Your task to perform on an android device: change the upload size in google photos Image 0: 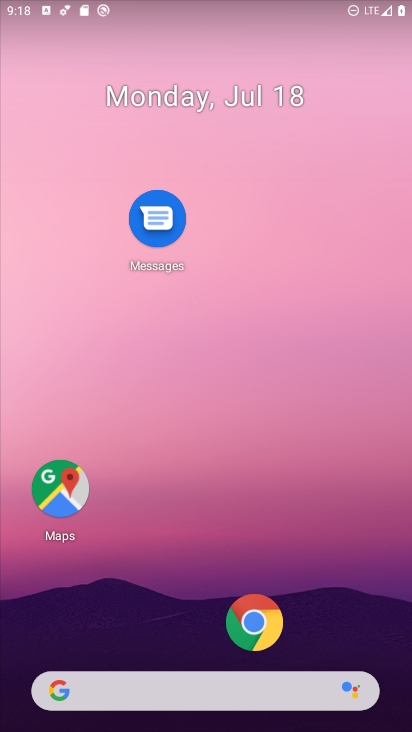
Step 0: drag from (212, 658) to (306, 175)
Your task to perform on an android device: change the upload size in google photos Image 1: 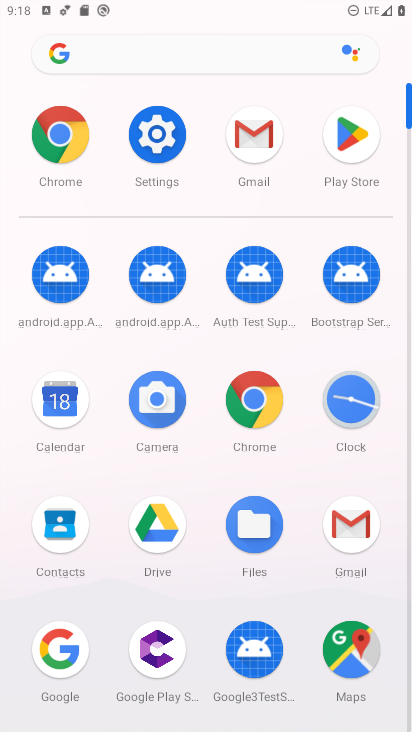
Step 1: drag from (265, 499) to (321, 191)
Your task to perform on an android device: change the upload size in google photos Image 2: 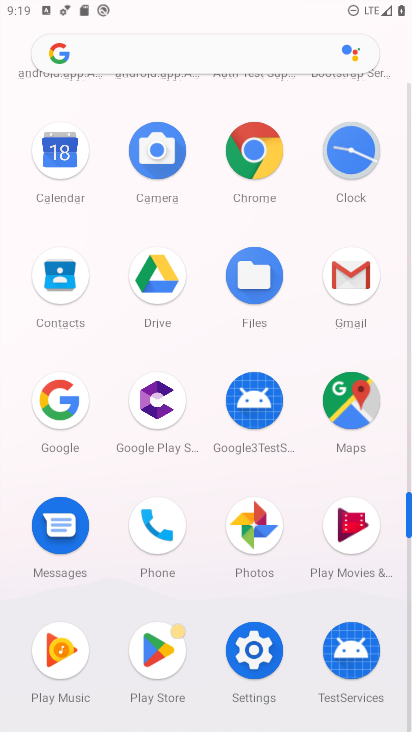
Step 2: click (261, 559)
Your task to perform on an android device: change the upload size in google photos Image 3: 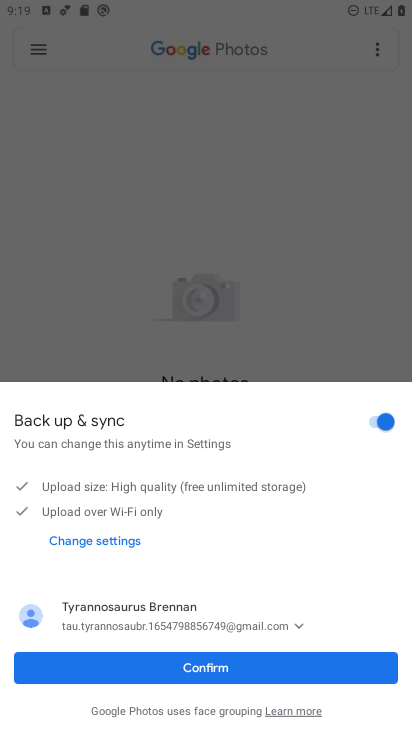
Step 3: click (212, 680)
Your task to perform on an android device: change the upload size in google photos Image 4: 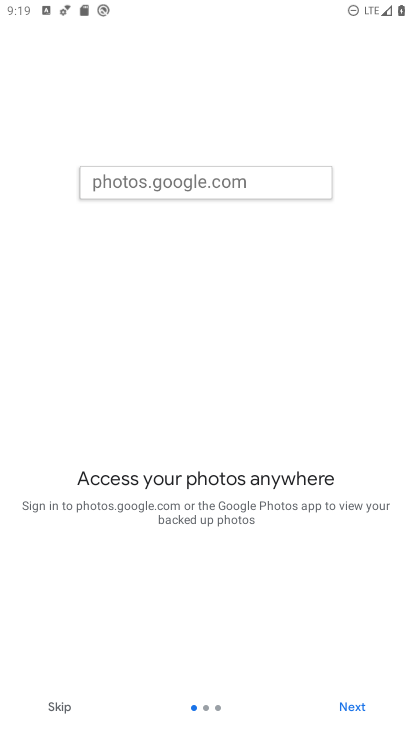
Step 4: click (350, 718)
Your task to perform on an android device: change the upload size in google photos Image 5: 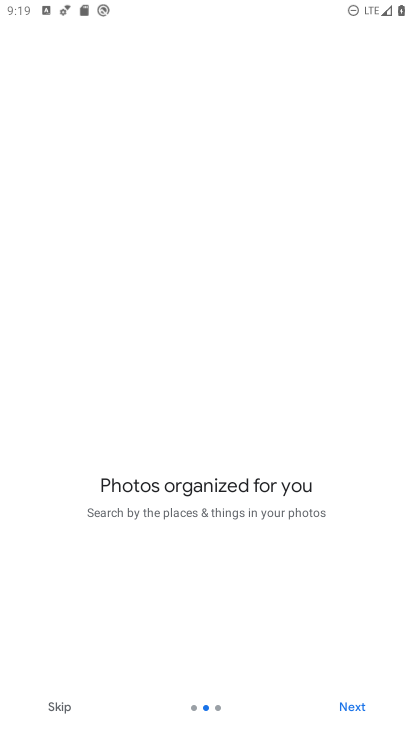
Step 5: click (350, 712)
Your task to perform on an android device: change the upload size in google photos Image 6: 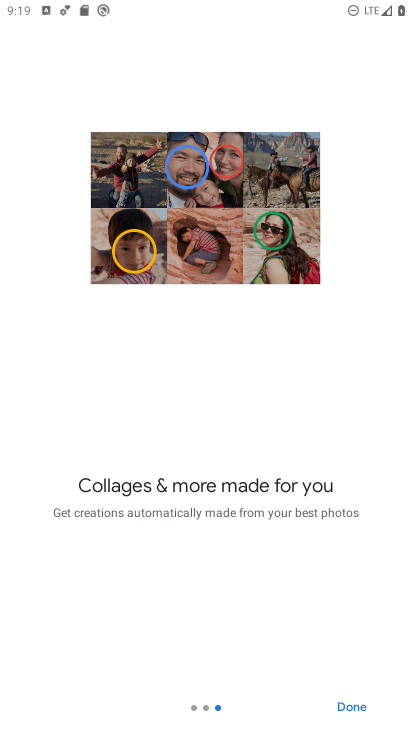
Step 6: click (353, 707)
Your task to perform on an android device: change the upload size in google photos Image 7: 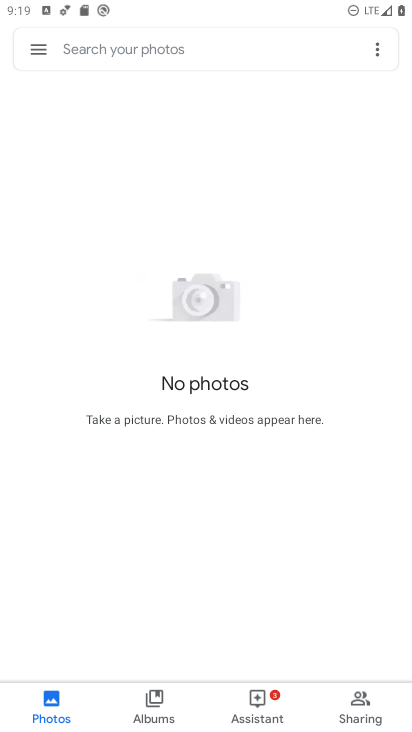
Step 7: click (36, 50)
Your task to perform on an android device: change the upload size in google photos Image 8: 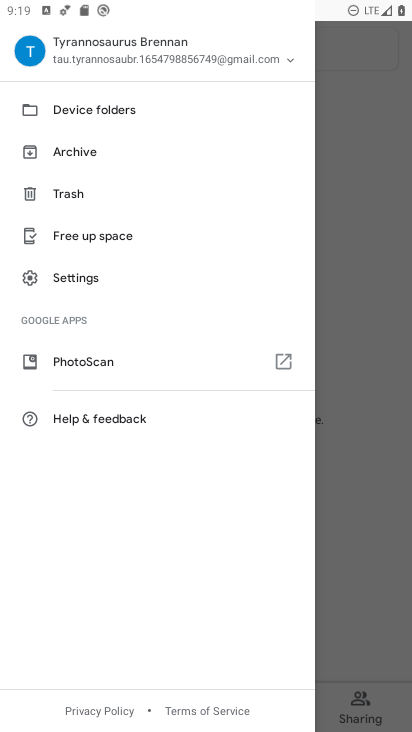
Step 8: click (80, 277)
Your task to perform on an android device: change the upload size in google photos Image 9: 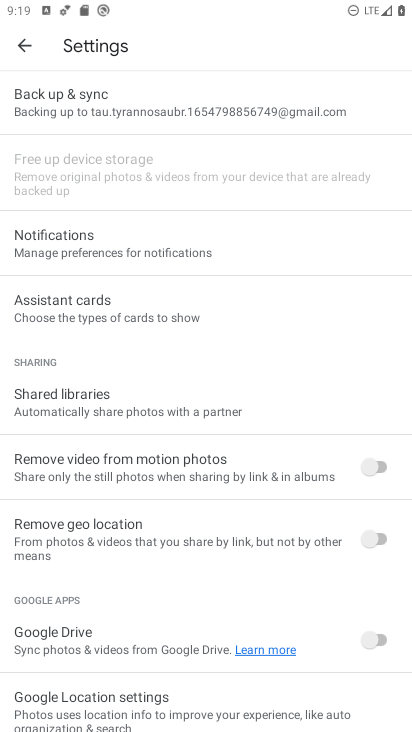
Step 9: click (123, 112)
Your task to perform on an android device: change the upload size in google photos Image 10: 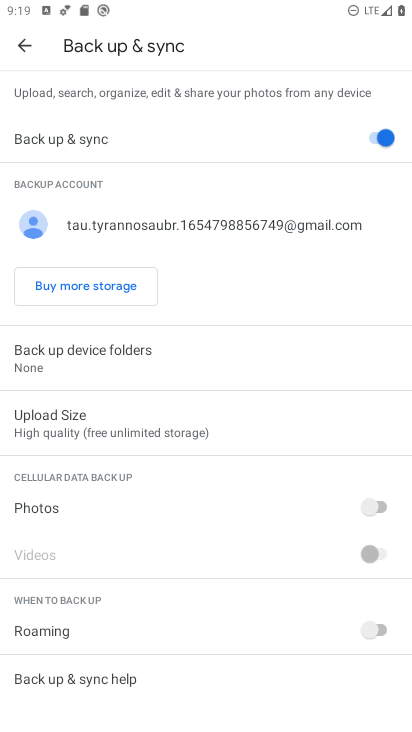
Step 10: click (100, 440)
Your task to perform on an android device: change the upload size in google photos Image 11: 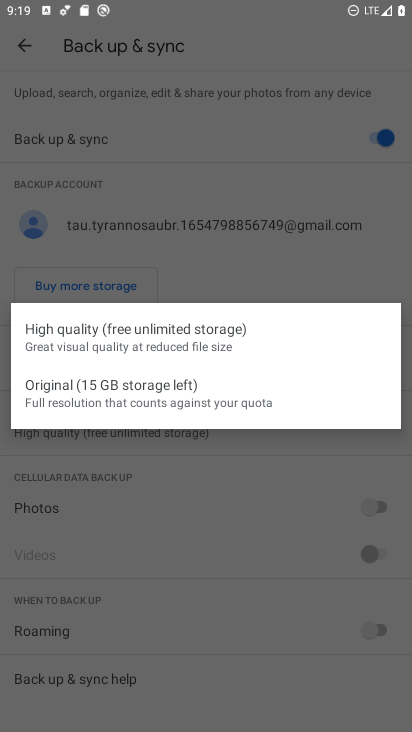
Step 11: click (204, 345)
Your task to perform on an android device: change the upload size in google photos Image 12: 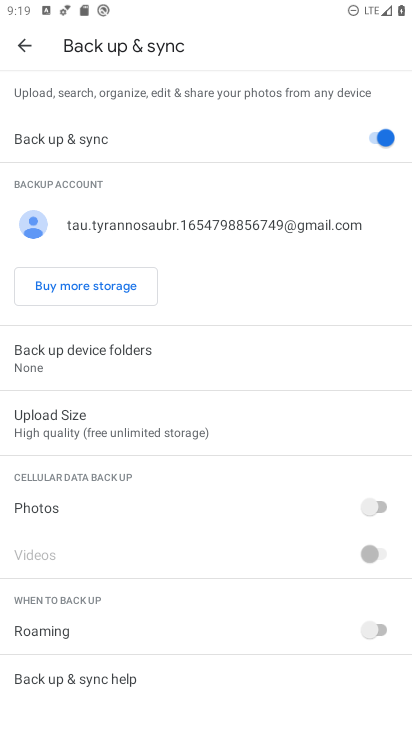
Step 12: task complete